Your task to perform on an android device: Search for the best vacuum on Amazon. Image 0: 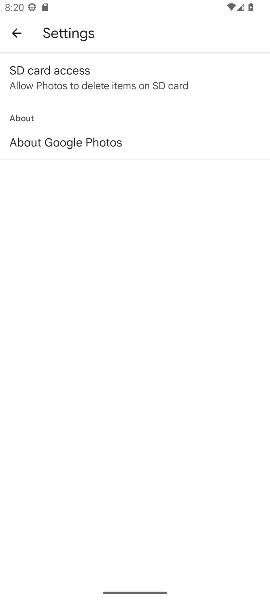
Step 0: press home button
Your task to perform on an android device: Search for the best vacuum on Amazon. Image 1: 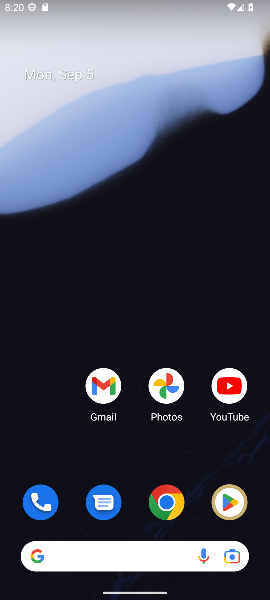
Step 1: drag from (179, 336) to (145, 92)
Your task to perform on an android device: Search for the best vacuum on Amazon. Image 2: 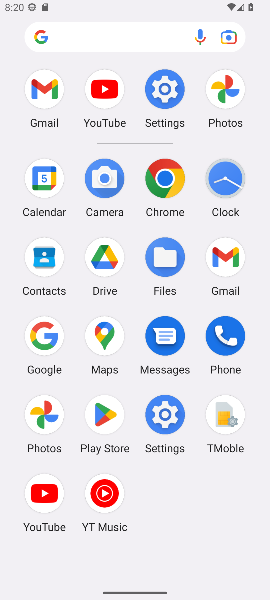
Step 2: click (31, 338)
Your task to perform on an android device: Search for the best vacuum on Amazon. Image 3: 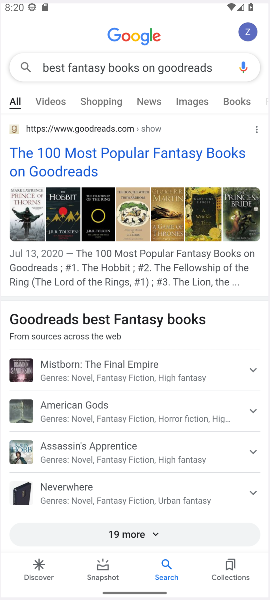
Step 3: press back button
Your task to perform on an android device: Search for the best vacuum on Amazon. Image 4: 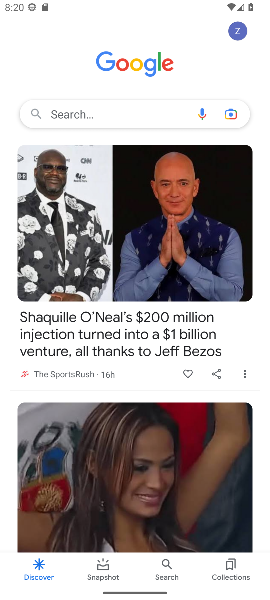
Step 4: click (81, 116)
Your task to perform on an android device: Search for the best vacuum on Amazon. Image 5: 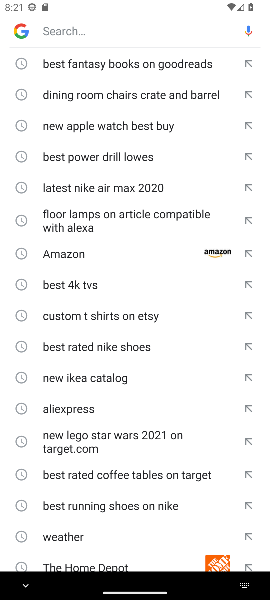
Step 5: type "best vacuum on Amazon"
Your task to perform on an android device: Search for the best vacuum on Amazon. Image 6: 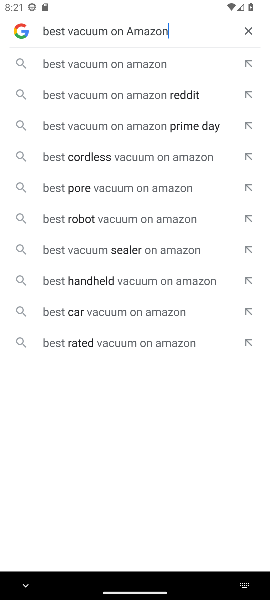
Step 6: click (146, 70)
Your task to perform on an android device: Search for the best vacuum on Amazon. Image 7: 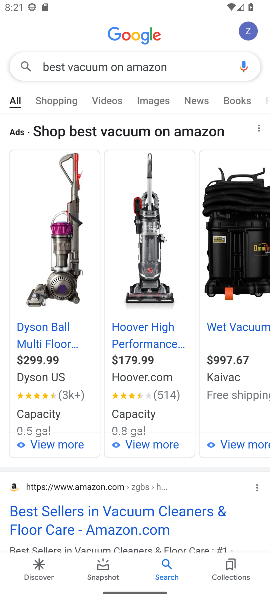
Step 7: task complete